Your task to perform on an android device: turn on priority inbox in the gmail app Image 0: 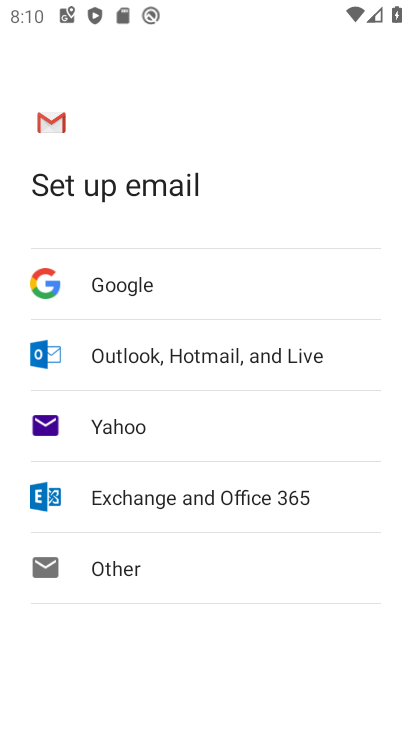
Step 0: press home button
Your task to perform on an android device: turn on priority inbox in the gmail app Image 1: 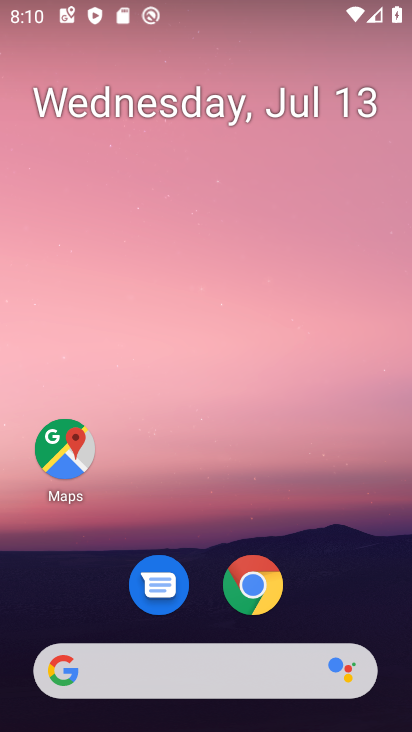
Step 1: drag from (214, 481) to (205, 5)
Your task to perform on an android device: turn on priority inbox in the gmail app Image 2: 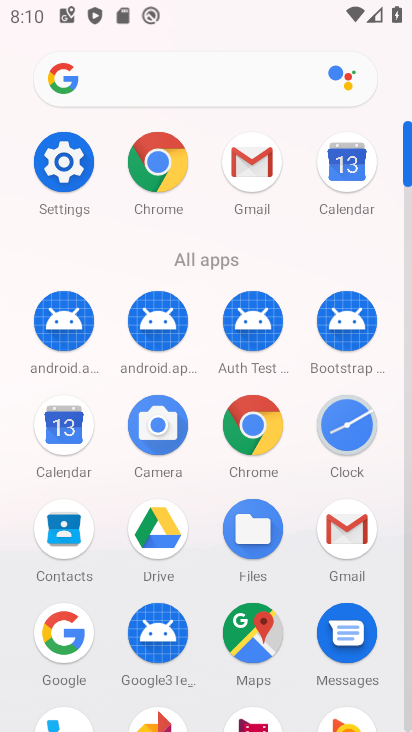
Step 2: click (256, 173)
Your task to perform on an android device: turn on priority inbox in the gmail app Image 3: 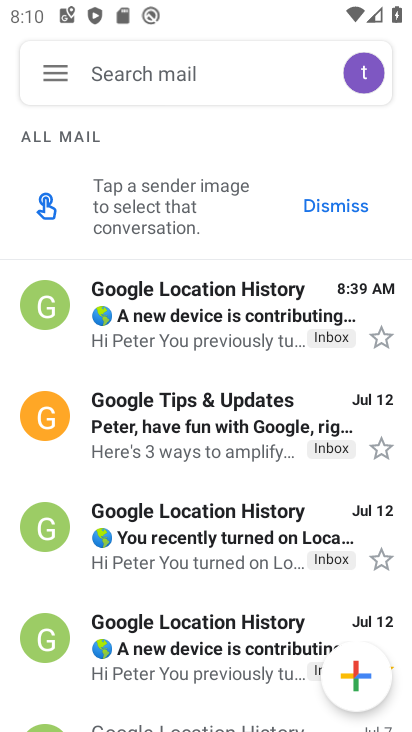
Step 3: click (52, 78)
Your task to perform on an android device: turn on priority inbox in the gmail app Image 4: 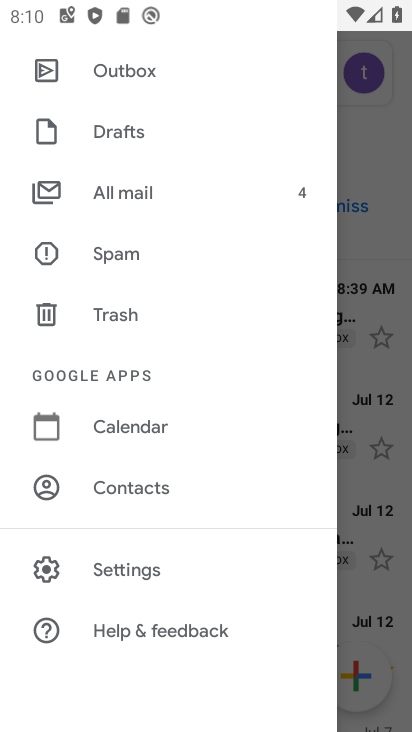
Step 4: click (134, 571)
Your task to perform on an android device: turn on priority inbox in the gmail app Image 5: 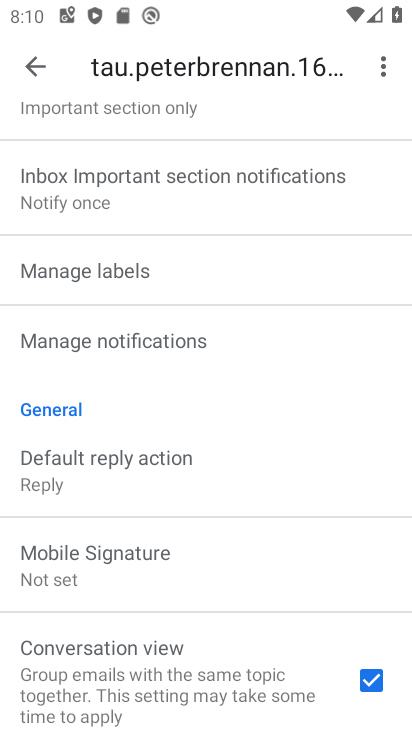
Step 5: drag from (235, 287) to (238, 624)
Your task to perform on an android device: turn on priority inbox in the gmail app Image 6: 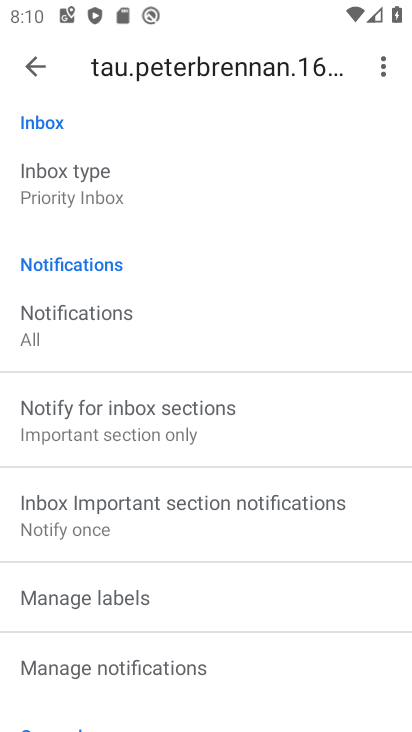
Step 6: click (71, 189)
Your task to perform on an android device: turn on priority inbox in the gmail app Image 7: 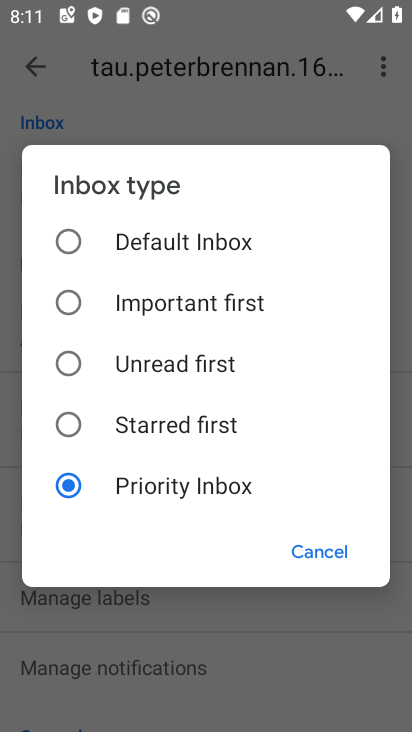
Step 7: click (336, 555)
Your task to perform on an android device: turn on priority inbox in the gmail app Image 8: 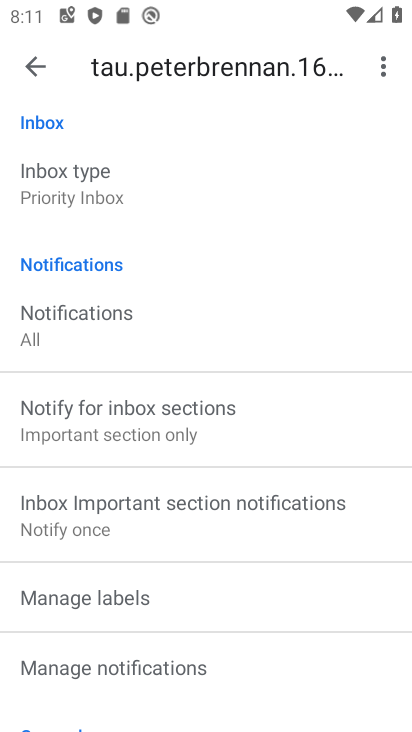
Step 8: task complete